Your task to perform on an android device: turn on airplane mode Image 0: 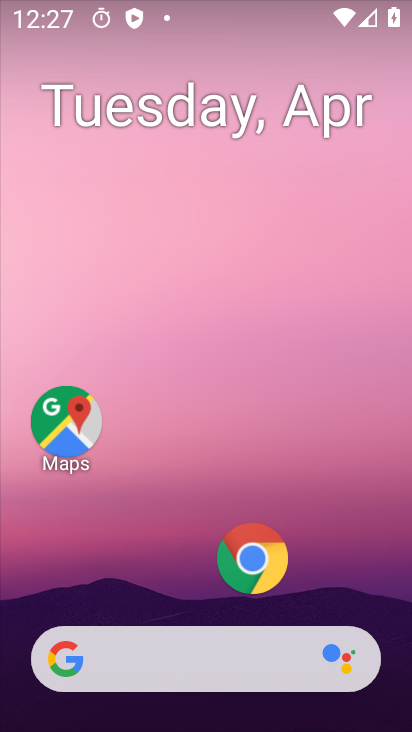
Step 0: drag from (119, 589) to (121, 263)
Your task to perform on an android device: turn on airplane mode Image 1: 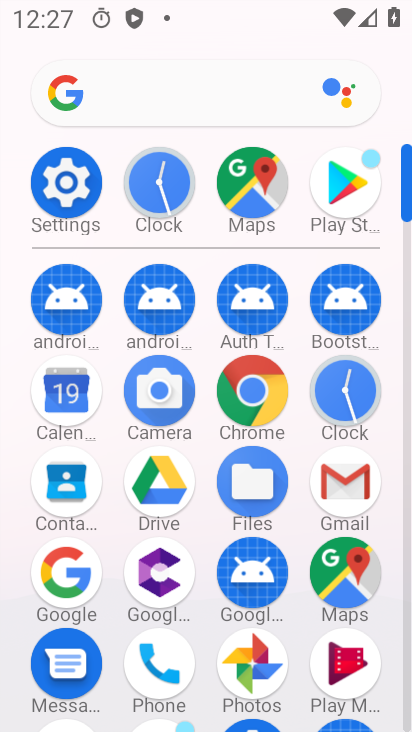
Step 1: drag from (308, 669) to (318, 273)
Your task to perform on an android device: turn on airplane mode Image 2: 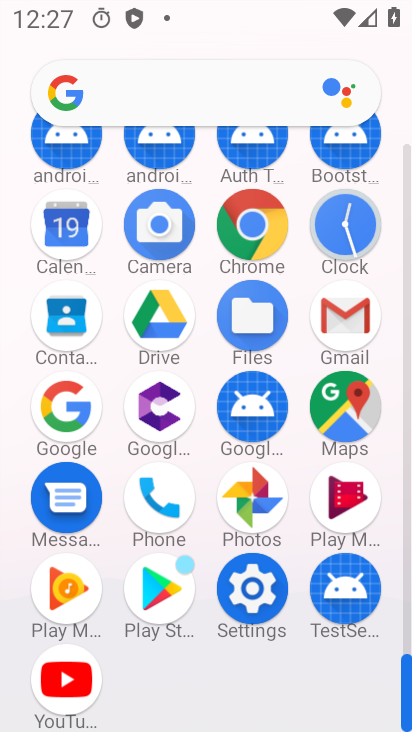
Step 2: click (257, 579)
Your task to perform on an android device: turn on airplane mode Image 3: 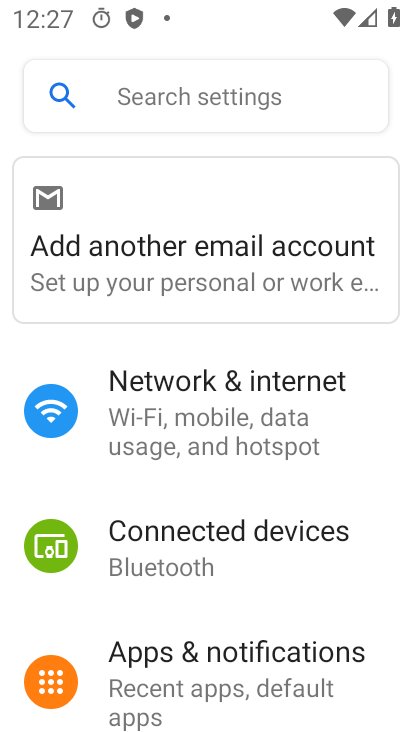
Step 3: drag from (205, 628) to (213, 421)
Your task to perform on an android device: turn on airplane mode Image 4: 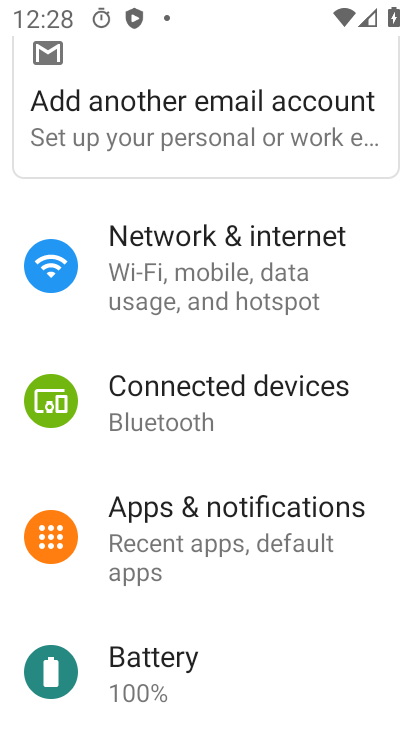
Step 4: click (183, 286)
Your task to perform on an android device: turn on airplane mode Image 5: 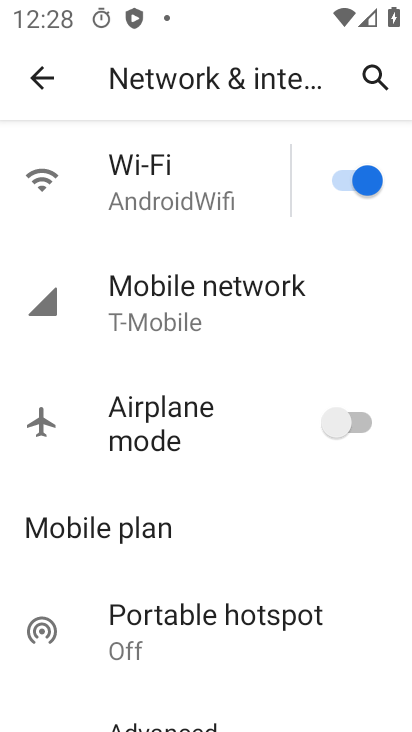
Step 5: click (352, 415)
Your task to perform on an android device: turn on airplane mode Image 6: 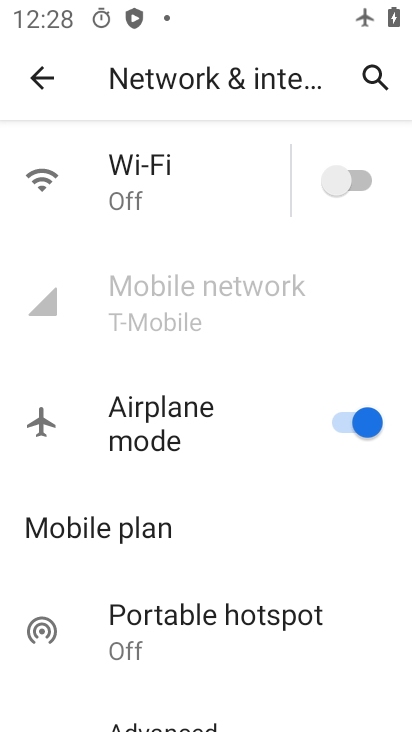
Step 6: task complete